Your task to perform on an android device: Search for top rated sushi restaurant Image 0: 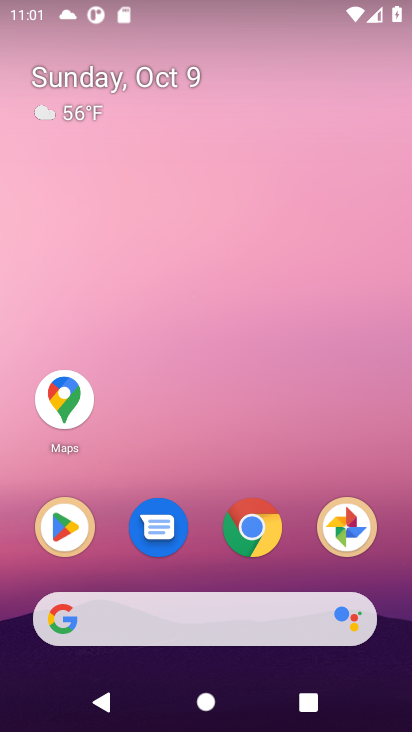
Step 0: click (252, 526)
Your task to perform on an android device: Search for top rated sushi restaurant Image 1: 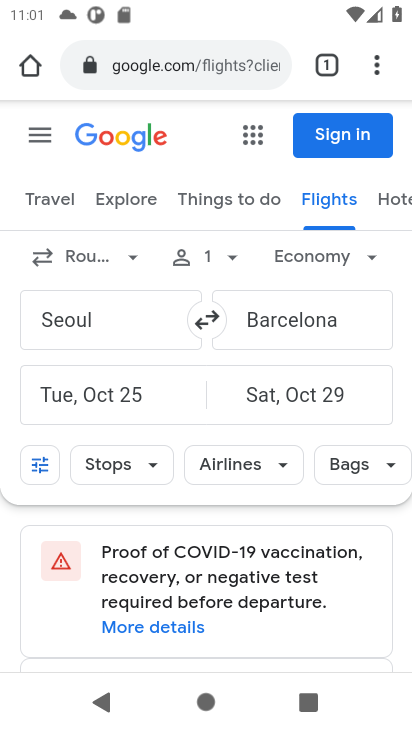
Step 1: click (183, 72)
Your task to perform on an android device: Search for top rated sushi restaurant Image 2: 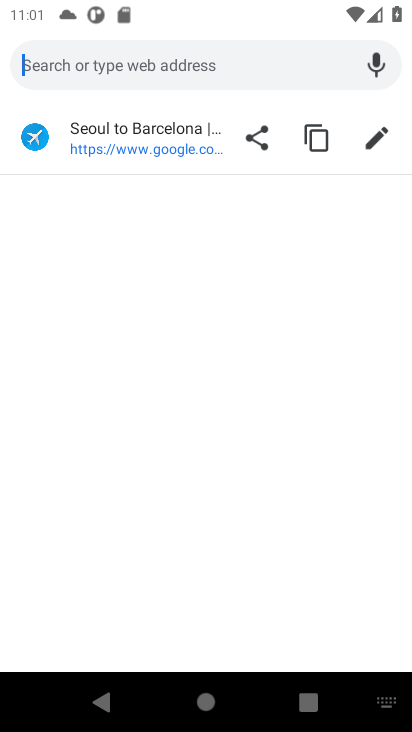
Step 2: type "top rated sushi restaurant"
Your task to perform on an android device: Search for top rated sushi restaurant Image 3: 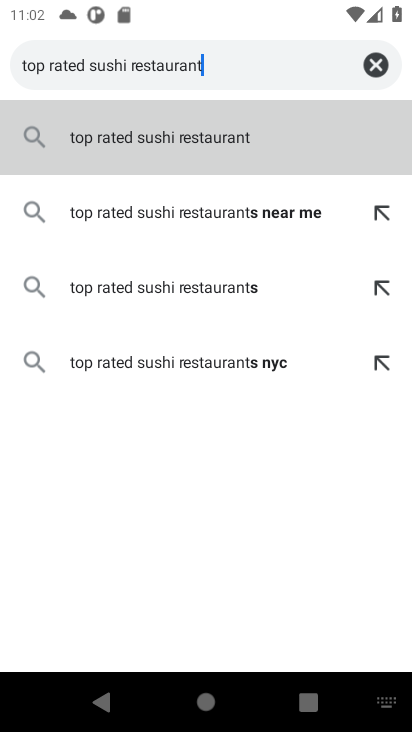
Step 3: click (211, 137)
Your task to perform on an android device: Search for top rated sushi restaurant Image 4: 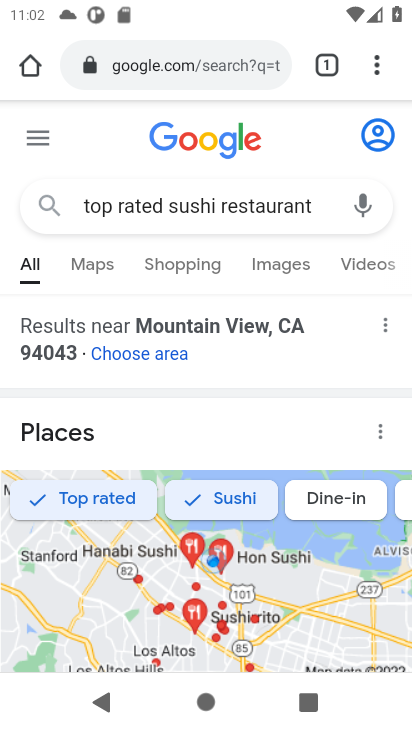
Step 4: drag from (183, 555) to (214, 162)
Your task to perform on an android device: Search for top rated sushi restaurant Image 5: 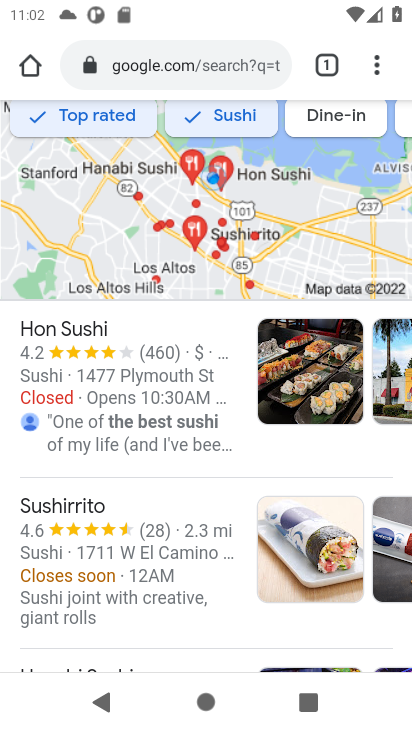
Step 5: click (162, 415)
Your task to perform on an android device: Search for top rated sushi restaurant Image 6: 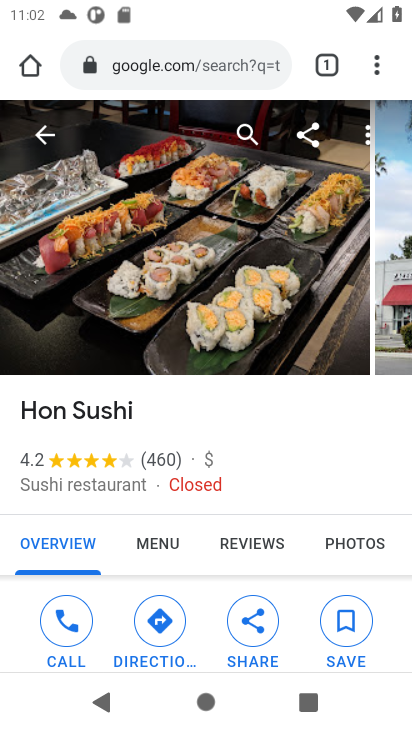
Step 6: task complete